Your task to perform on an android device: Go to Amazon Image 0: 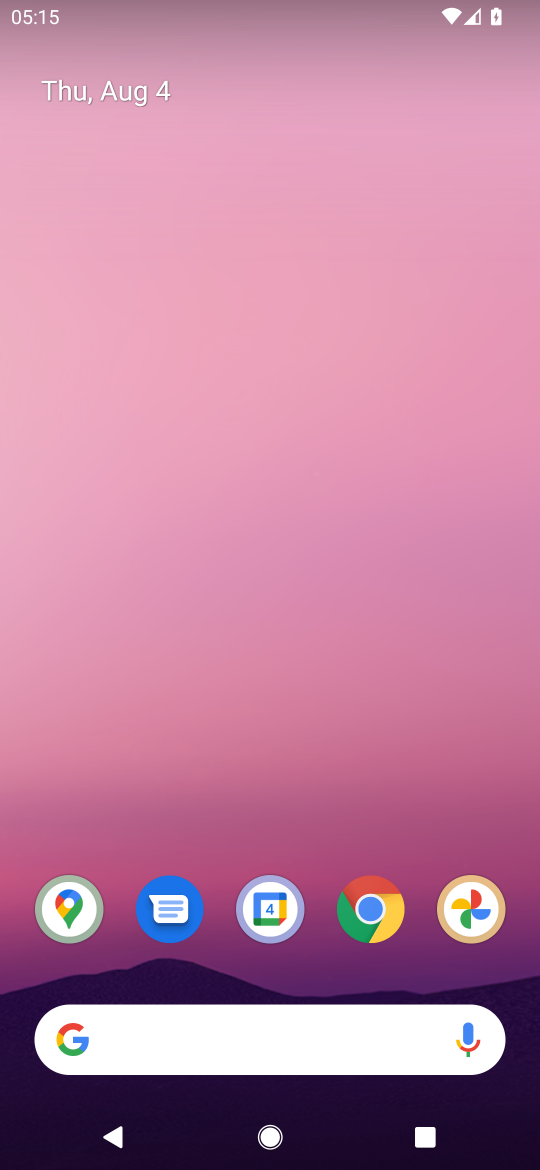
Step 0: click (68, 1034)
Your task to perform on an android device: Go to Amazon Image 1: 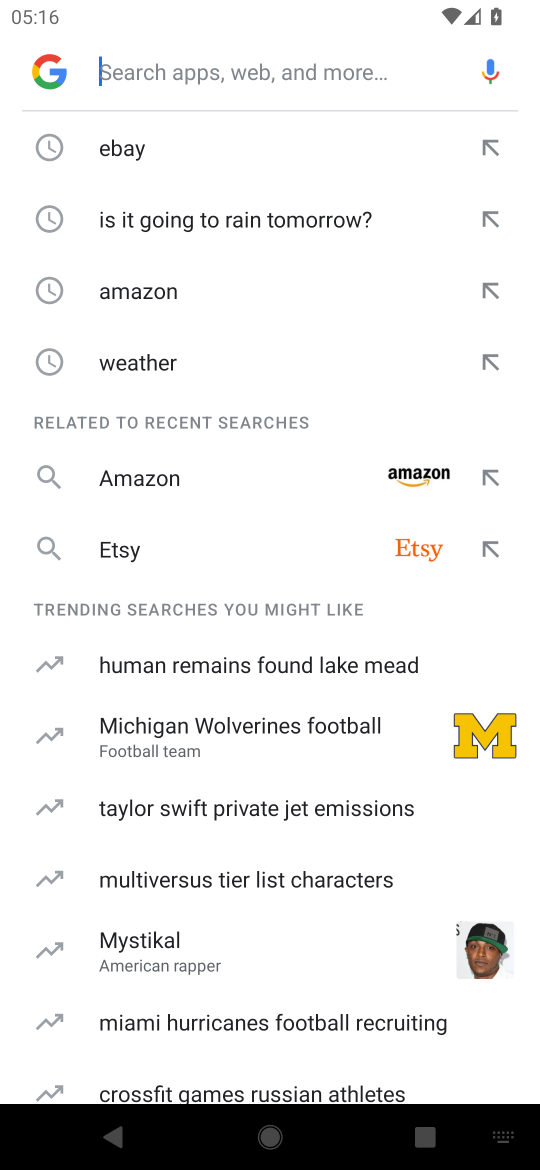
Step 1: click (404, 465)
Your task to perform on an android device: Go to Amazon Image 2: 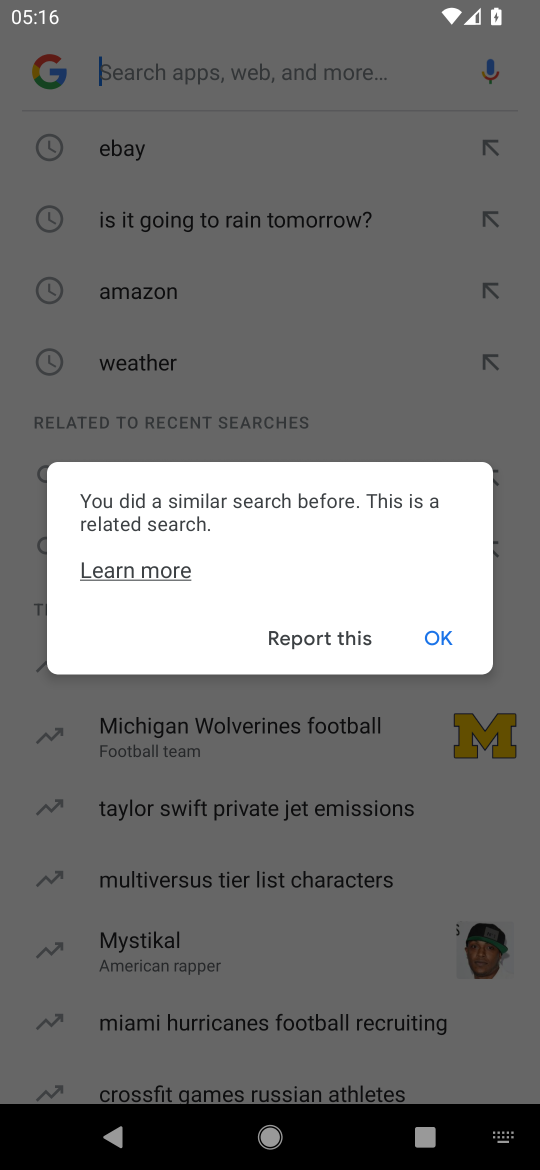
Step 2: click (441, 633)
Your task to perform on an android device: Go to Amazon Image 3: 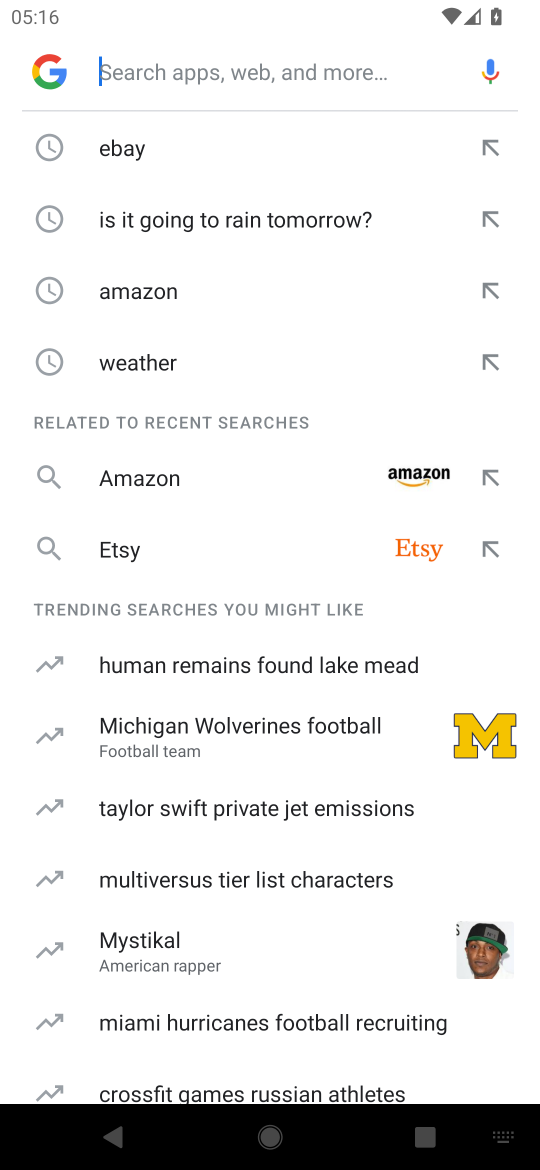
Step 3: click (444, 456)
Your task to perform on an android device: Go to Amazon Image 4: 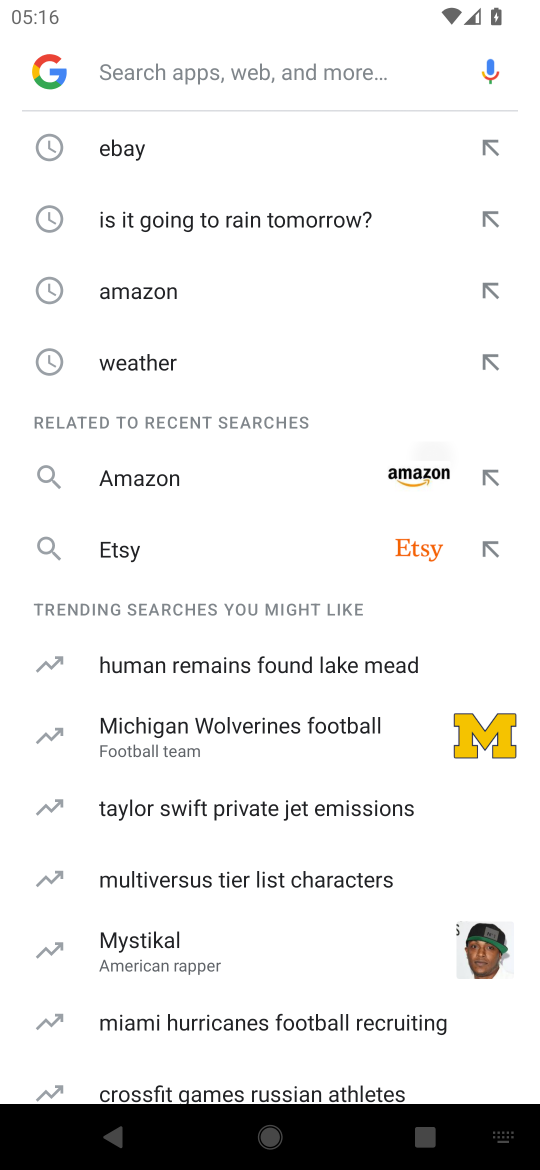
Step 4: click (425, 474)
Your task to perform on an android device: Go to Amazon Image 5: 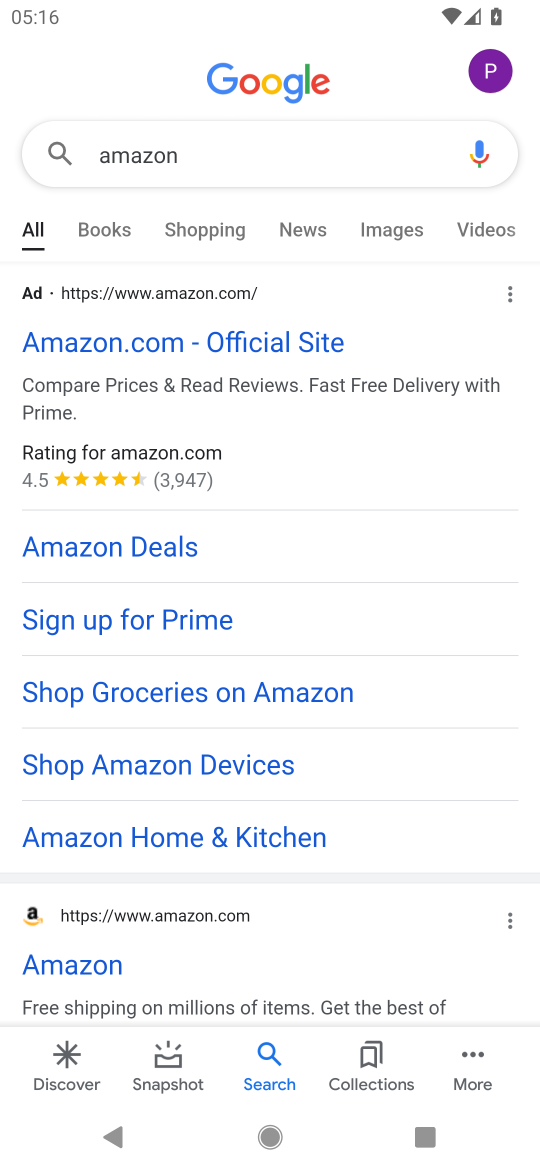
Step 5: click (76, 957)
Your task to perform on an android device: Go to Amazon Image 6: 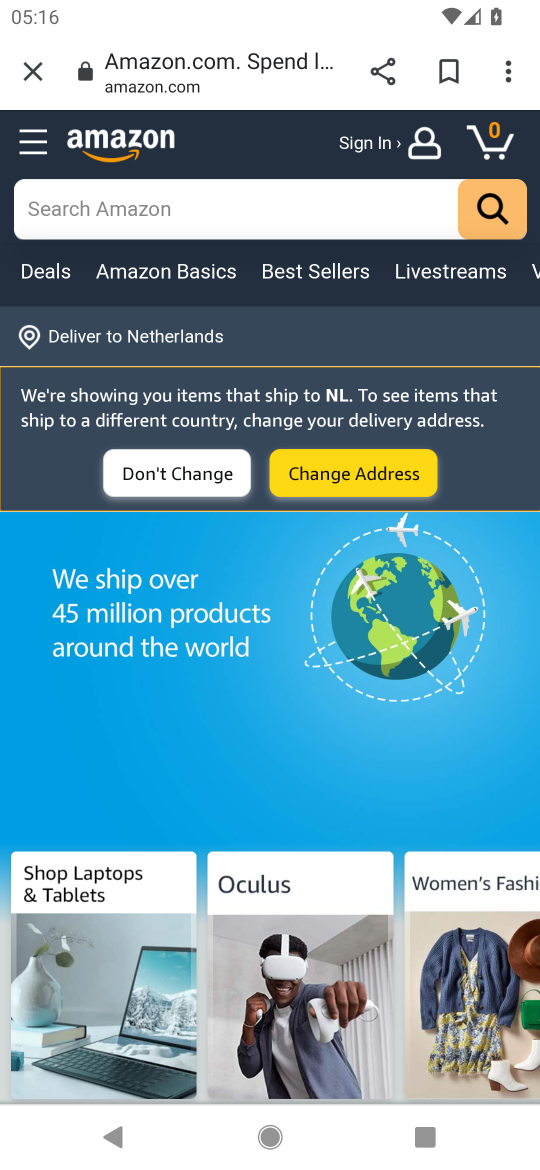
Step 6: task complete